Your task to perform on an android device: Add alienware aurora to the cart on walmart, then select checkout. Image 0: 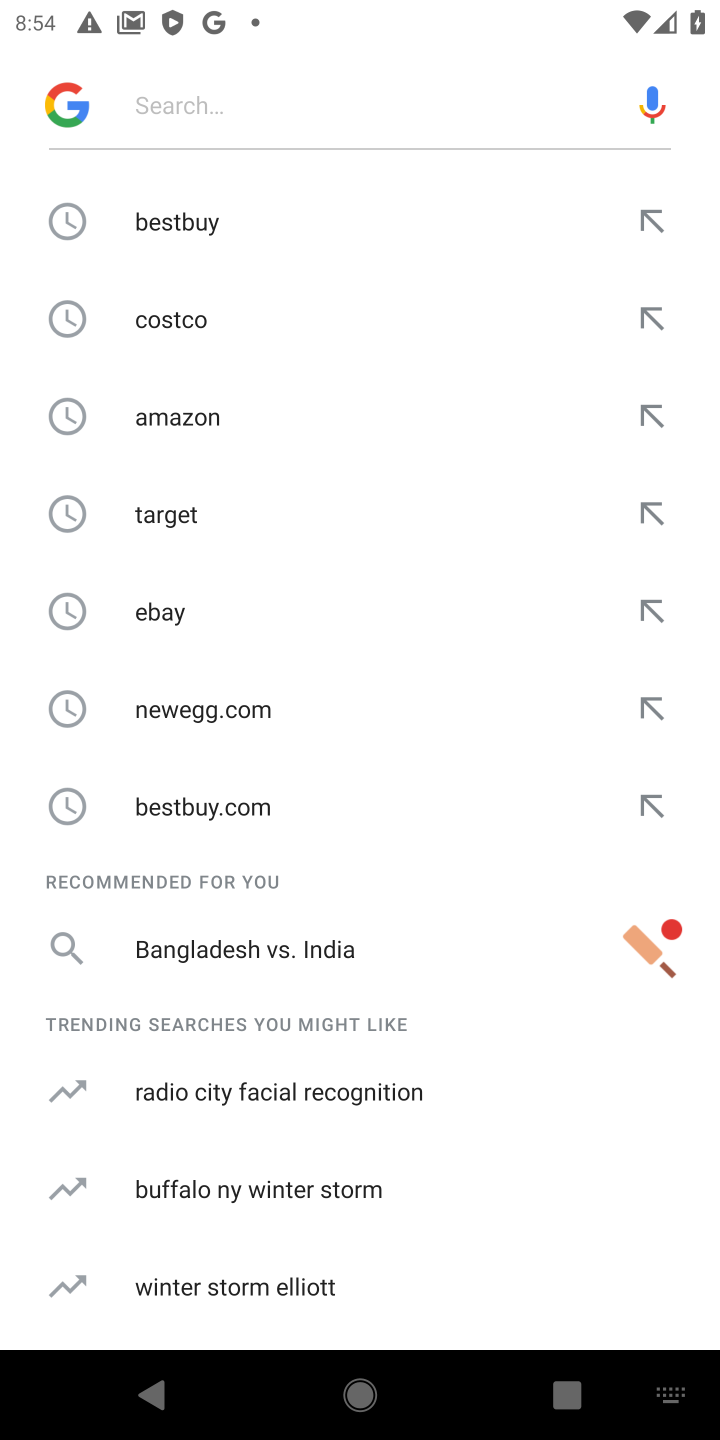
Step 0: click (182, 119)
Your task to perform on an android device: Add alienware aurora to the cart on walmart, then select checkout. Image 1: 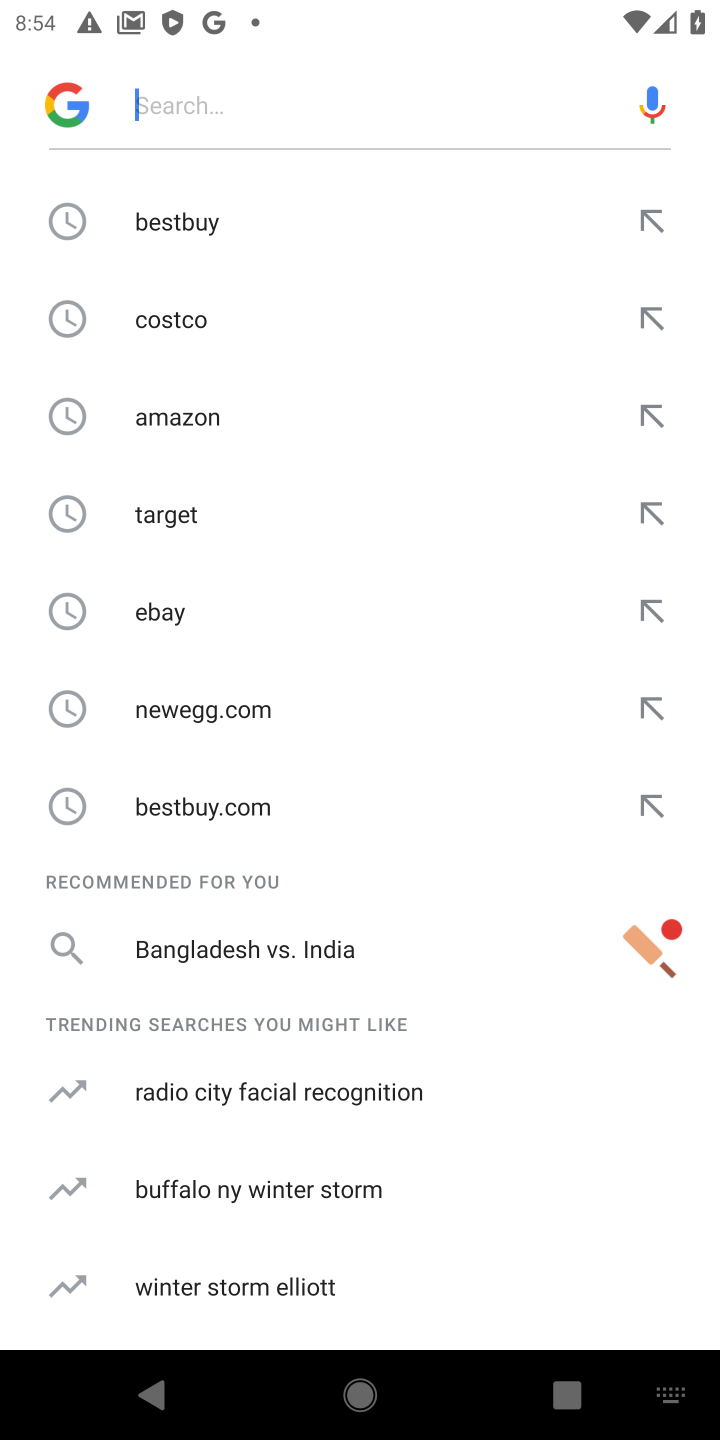
Step 1: type "walmart.com"
Your task to perform on an android device: Add alienware aurora to the cart on walmart, then select checkout. Image 2: 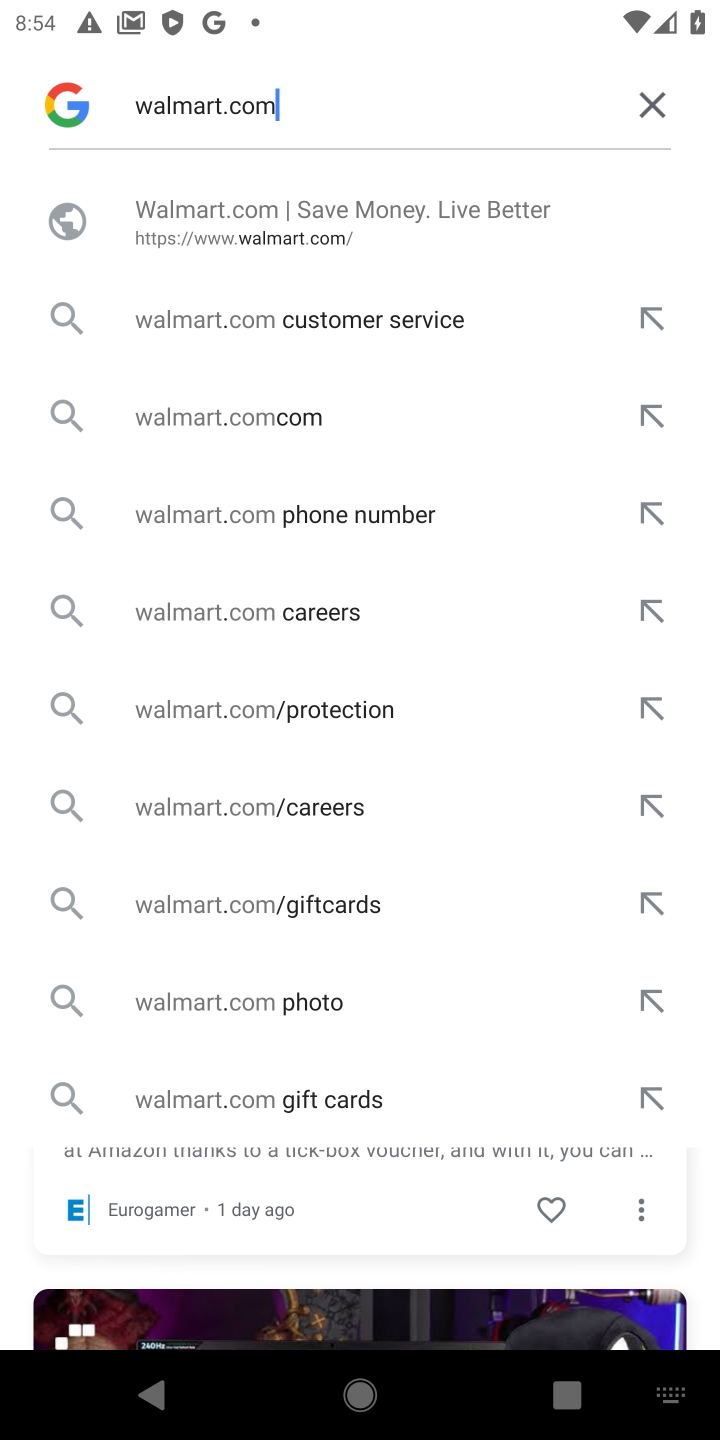
Step 2: click (212, 241)
Your task to perform on an android device: Add alienware aurora to the cart on walmart, then select checkout. Image 3: 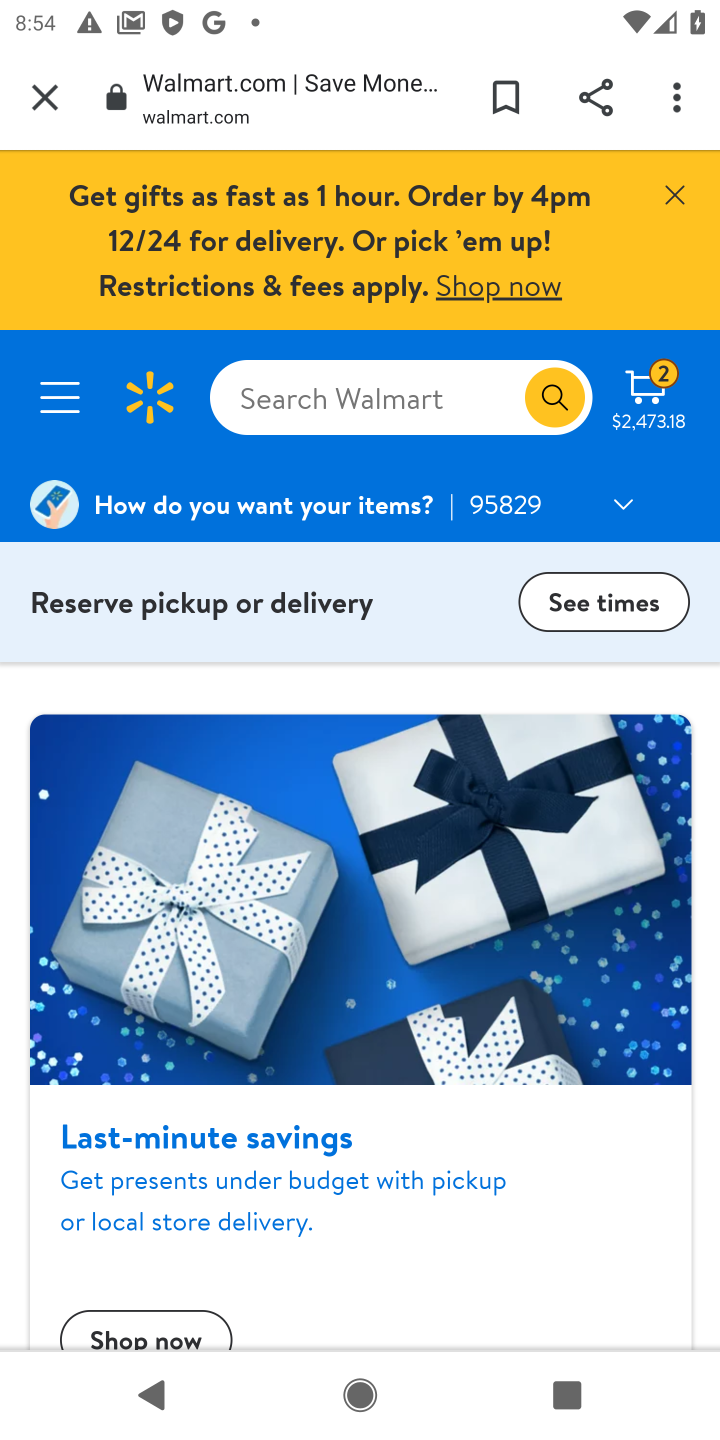
Step 3: click (273, 414)
Your task to perform on an android device: Add alienware aurora to the cart on walmart, then select checkout. Image 4: 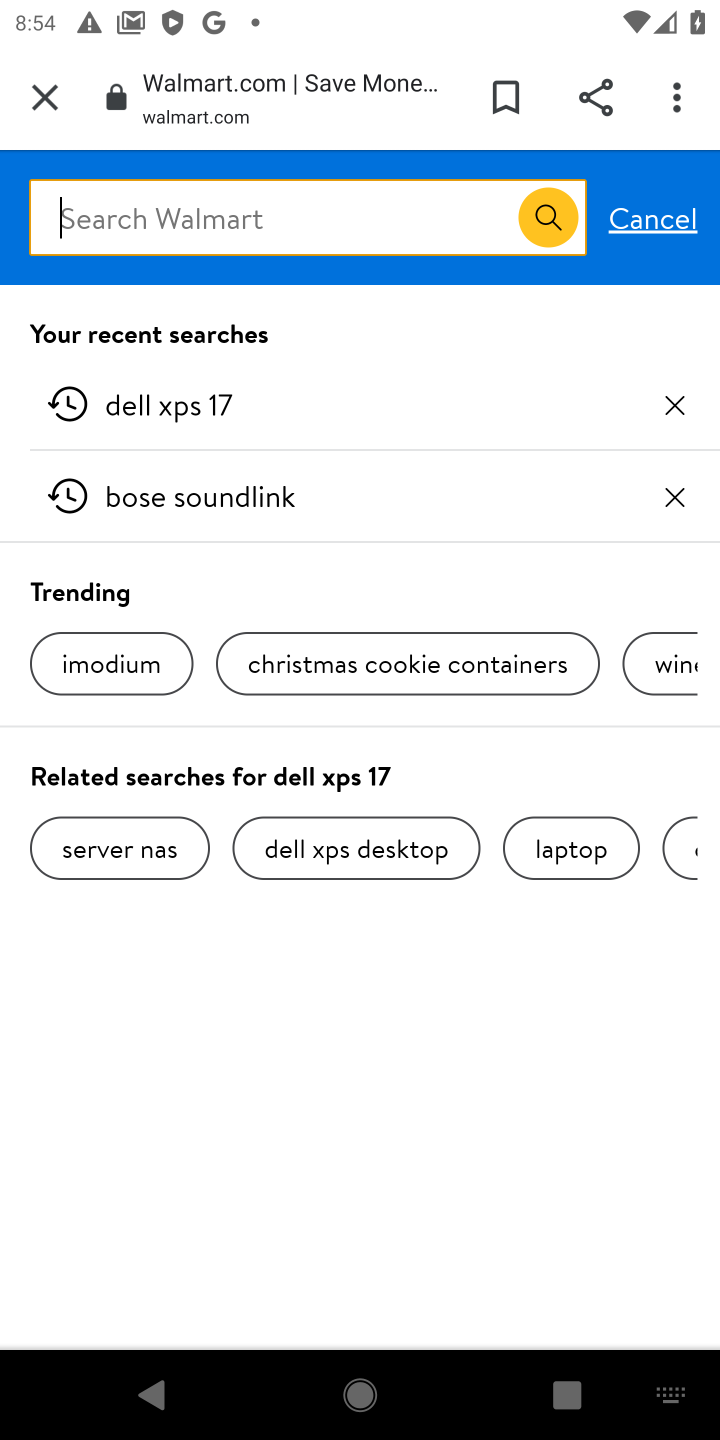
Step 4: type "alienware aurora"
Your task to perform on an android device: Add alienware aurora to the cart on walmart, then select checkout. Image 5: 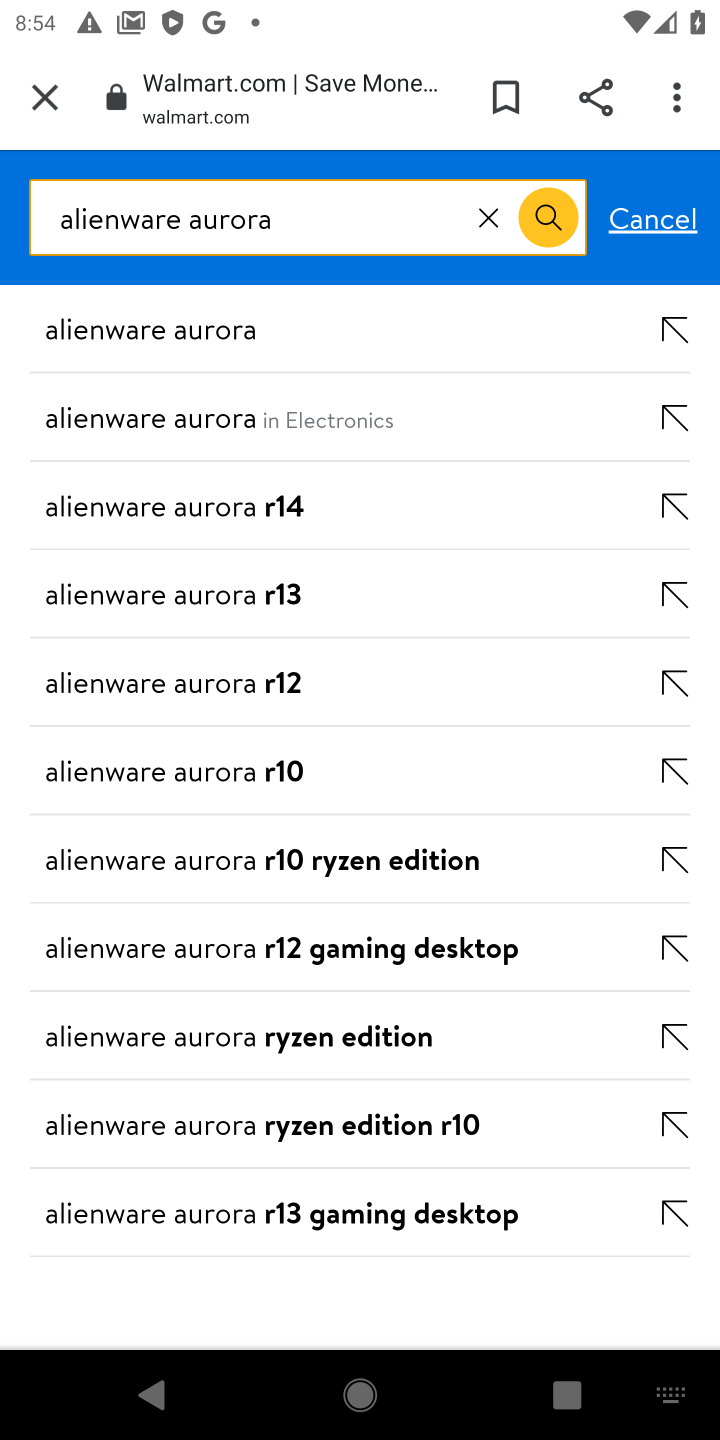
Step 5: click (157, 330)
Your task to perform on an android device: Add alienware aurora to the cart on walmart, then select checkout. Image 6: 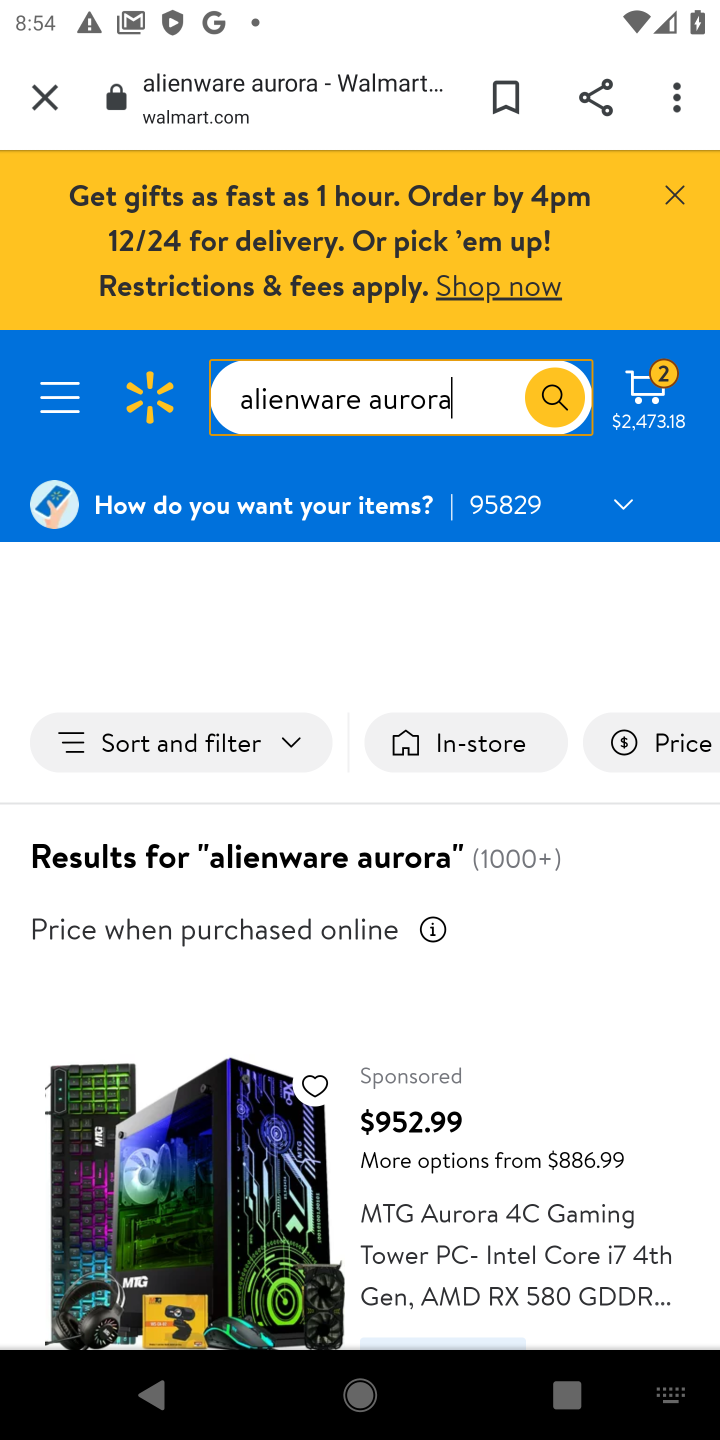
Step 6: drag from (235, 937) to (304, 506)
Your task to perform on an android device: Add alienware aurora to the cart on walmart, then select checkout. Image 7: 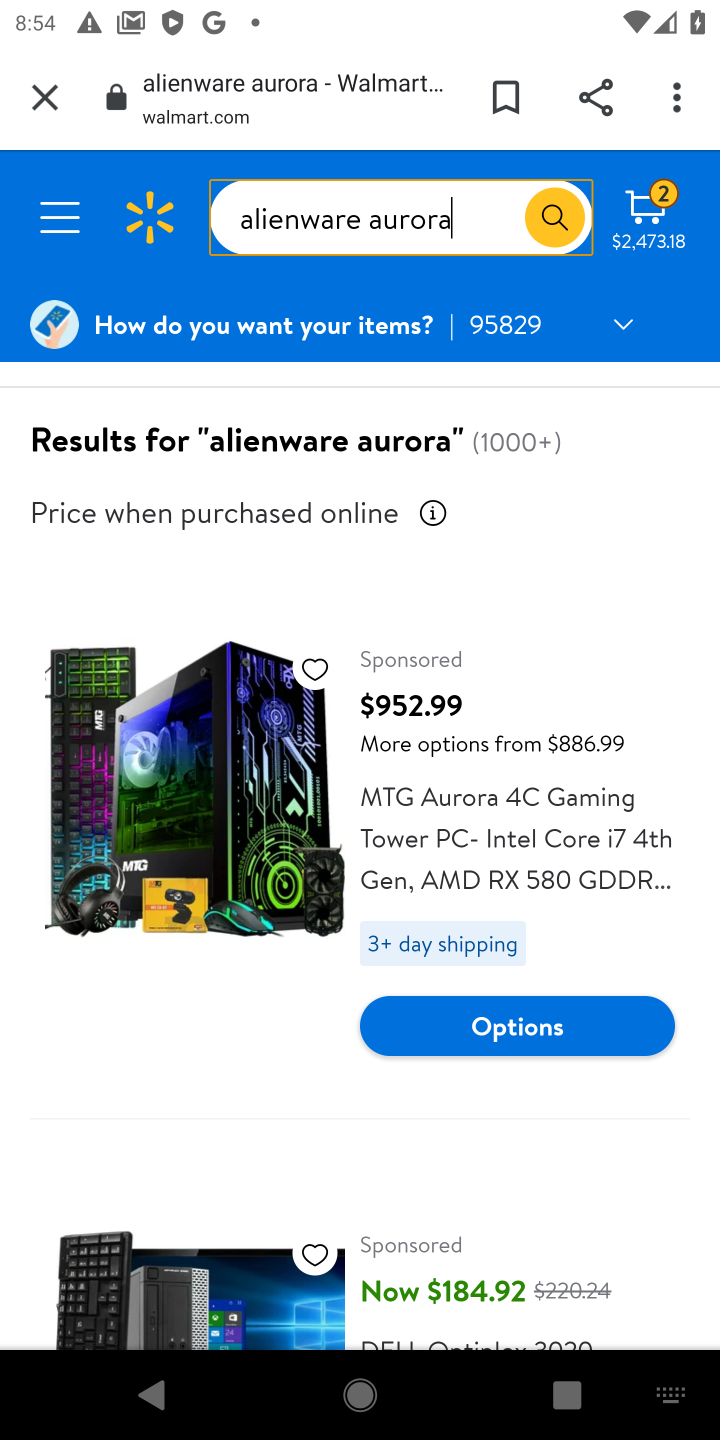
Step 7: drag from (358, 873) to (334, 489)
Your task to perform on an android device: Add alienware aurora to the cart on walmart, then select checkout. Image 8: 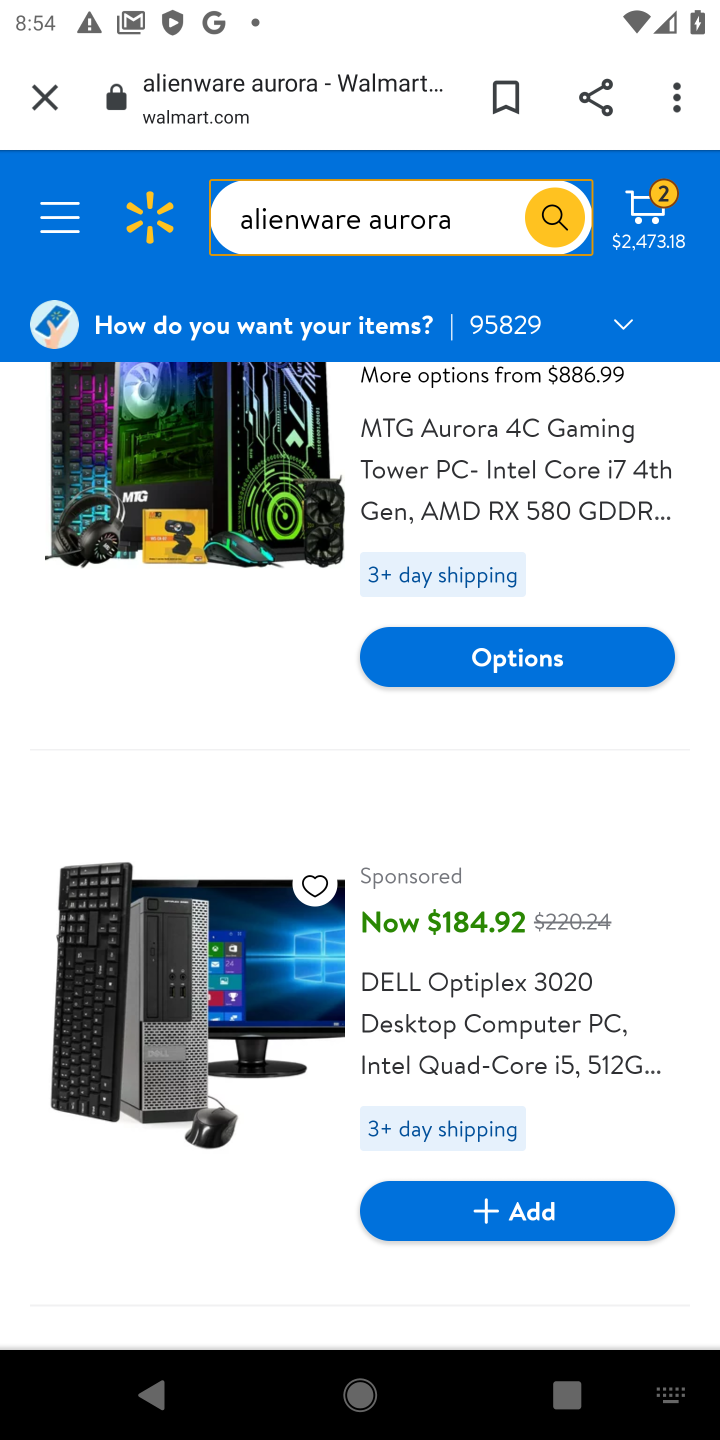
Step 8: drag from (316, 997) to (299, 432)
Your task to perform on an android device: Add alienware aurora to the cart on walmart, then select checkout. Image 9: 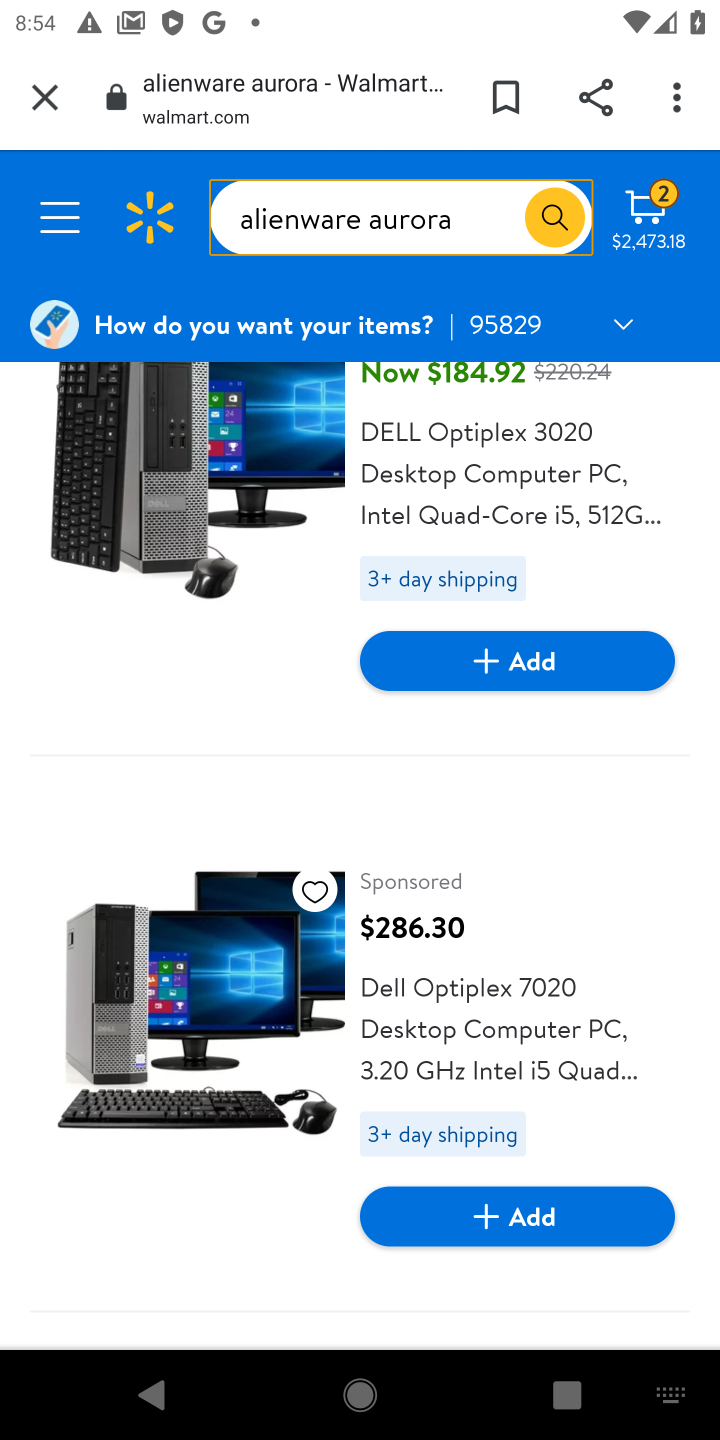
Step 9: drag from (236, 872) to (254, 514)
Your task to perform on an android device: Add alienware aurora to the cart on walmart, then select checkout. Image 10: 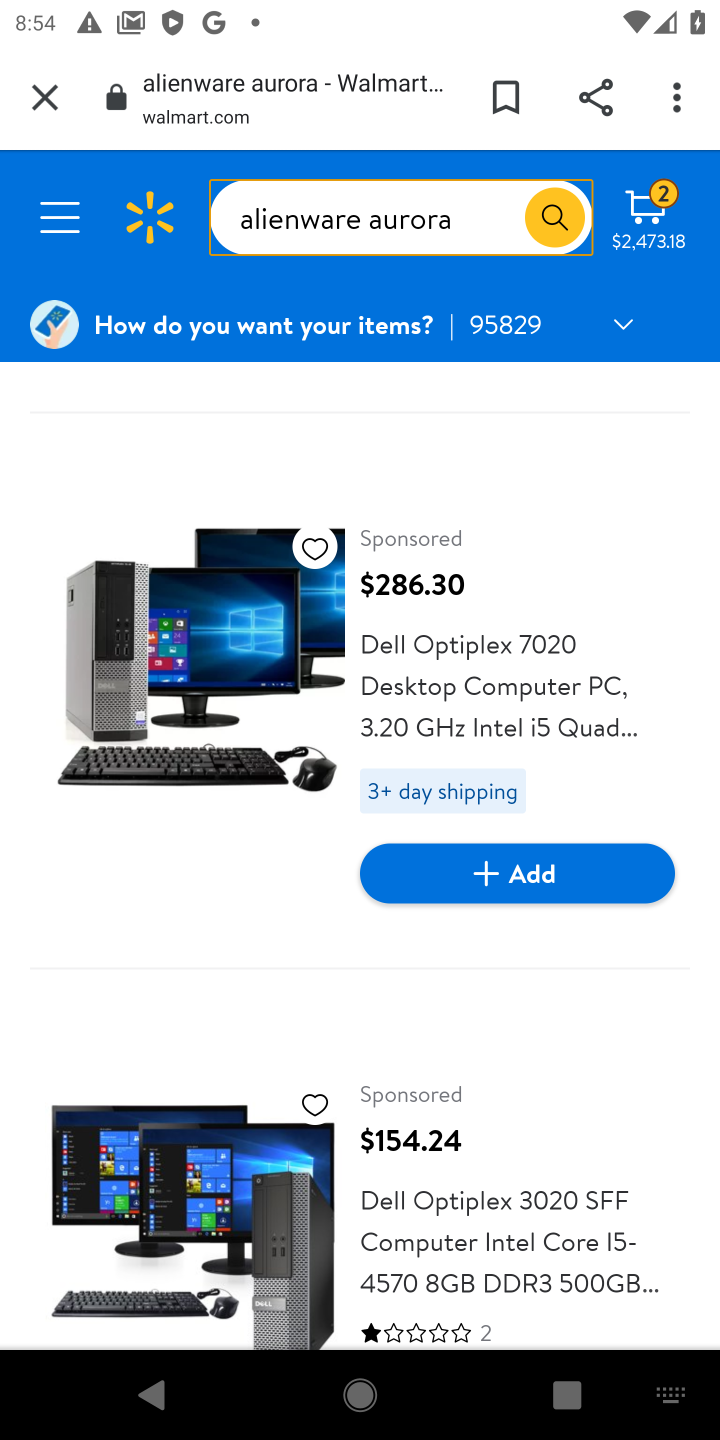
Step 10: drag from (244, 1002) to (260, 498)
Your task to perform on an android device: Add alienware aurora to the cart on walmart, then select checkout. Image 11: 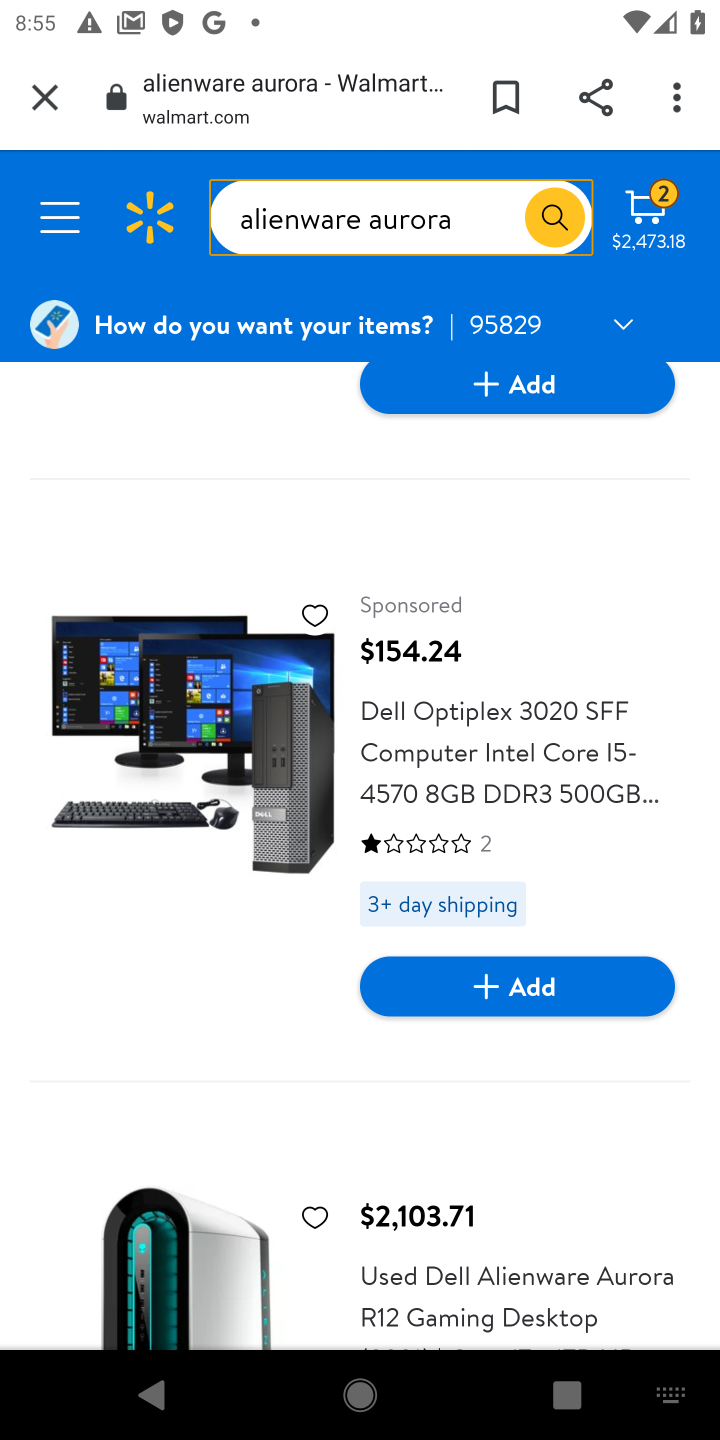
Step 11: drag from (266, 927) to (270, 588)
Your task to perform on an android device: Add alienware aurora to the cart on walmart, then select checkout. Image 12: 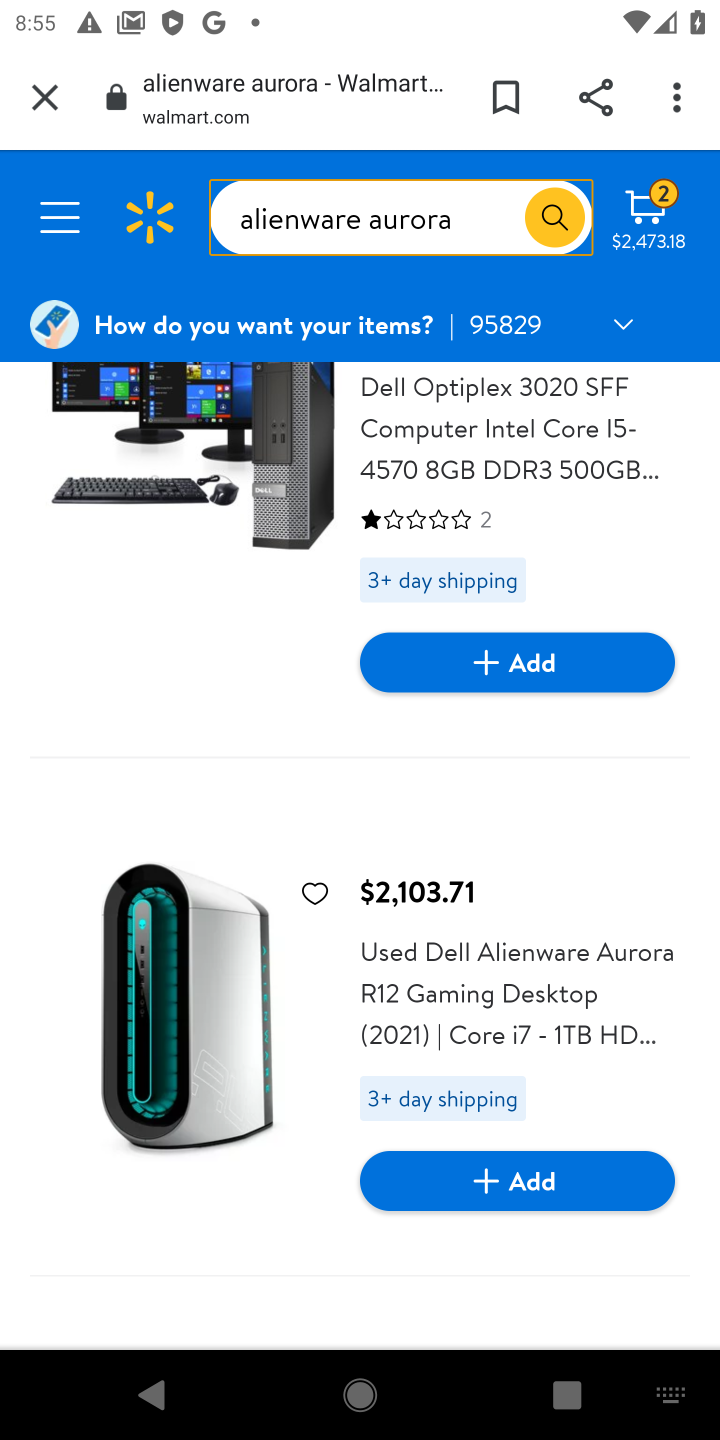
Step 12: click (540, 1184)
Your task to perform on an android device: Add alienware aurora to the cart on walmart, then select checkout. Image 13: 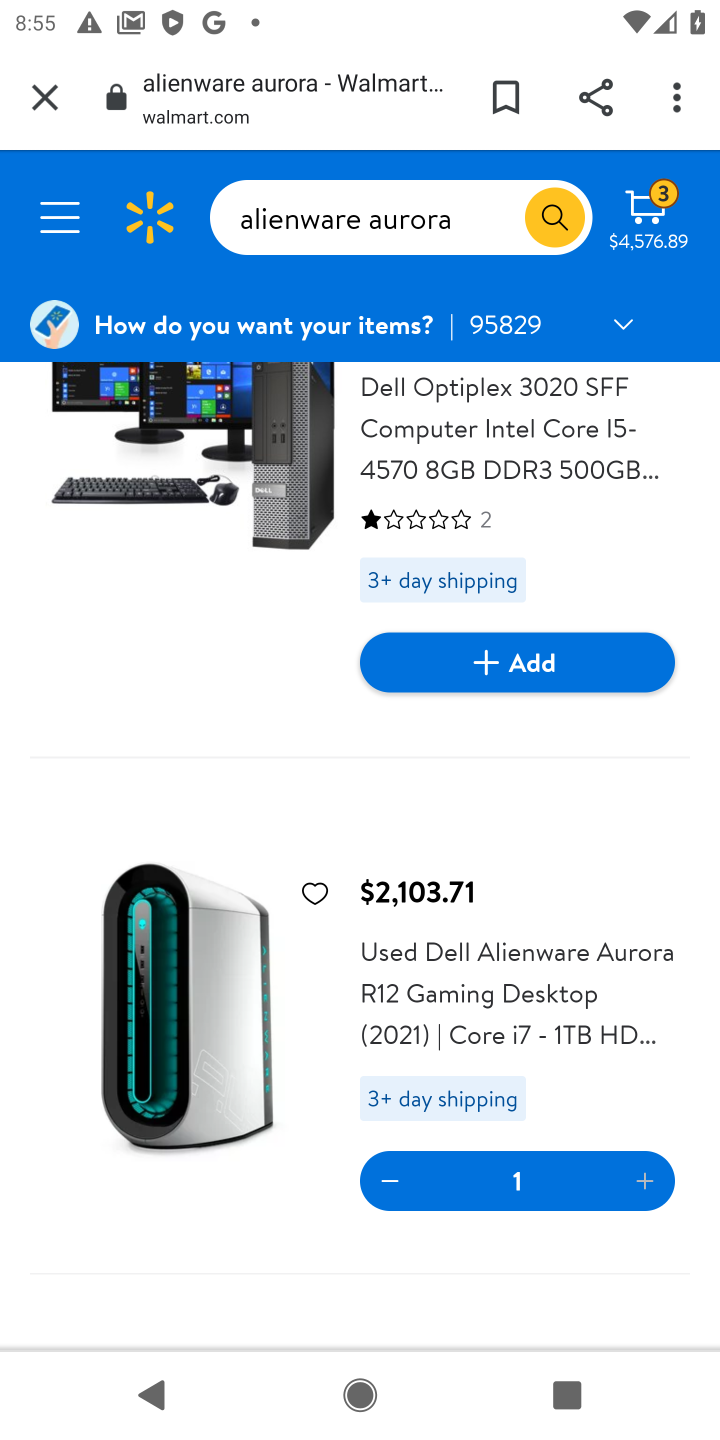
Step 13: click (640, 213)
Your task to perform on an android device: Add alienware aurora to the cart on walmart, then select checkout. Image 14: 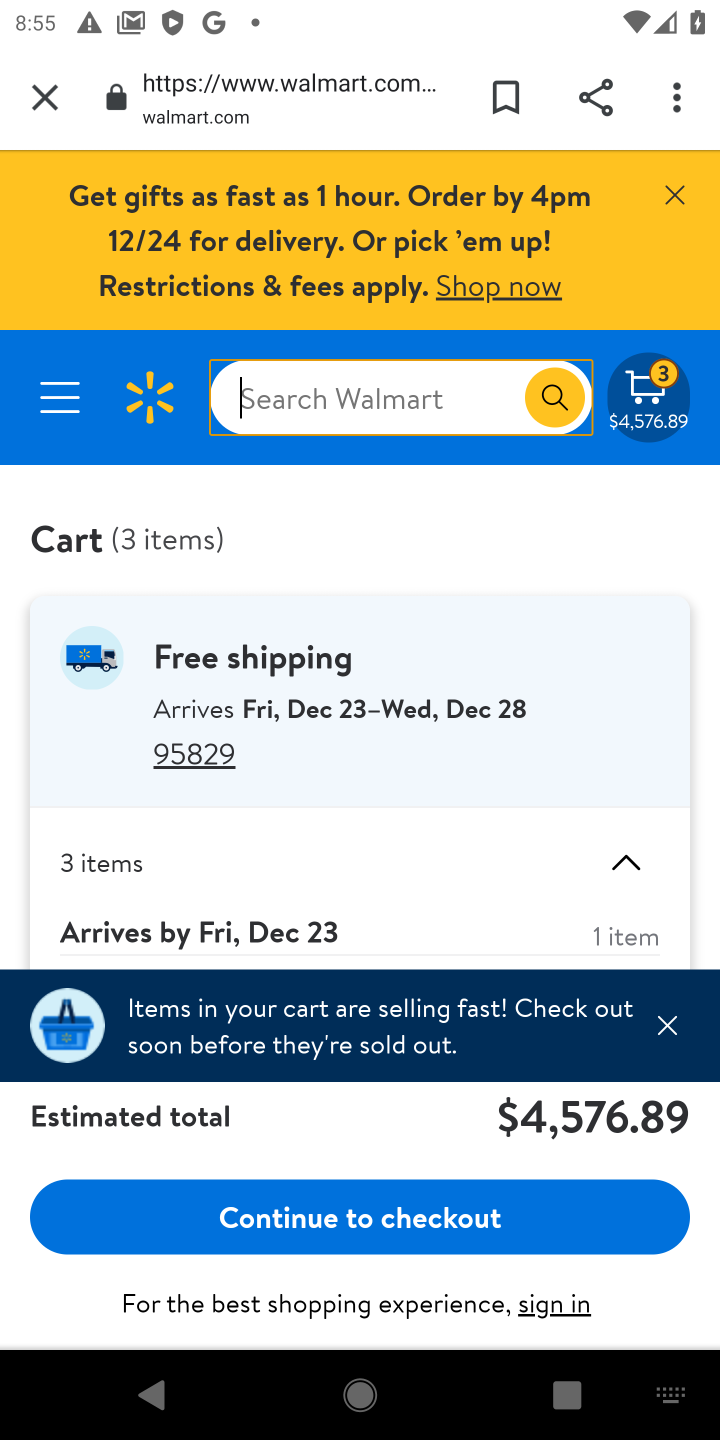
Step 14: click (316, 1233)
Your task to perform on an android device: Add alienware aurora to the cart on walmart, then select checkout. Image 15: 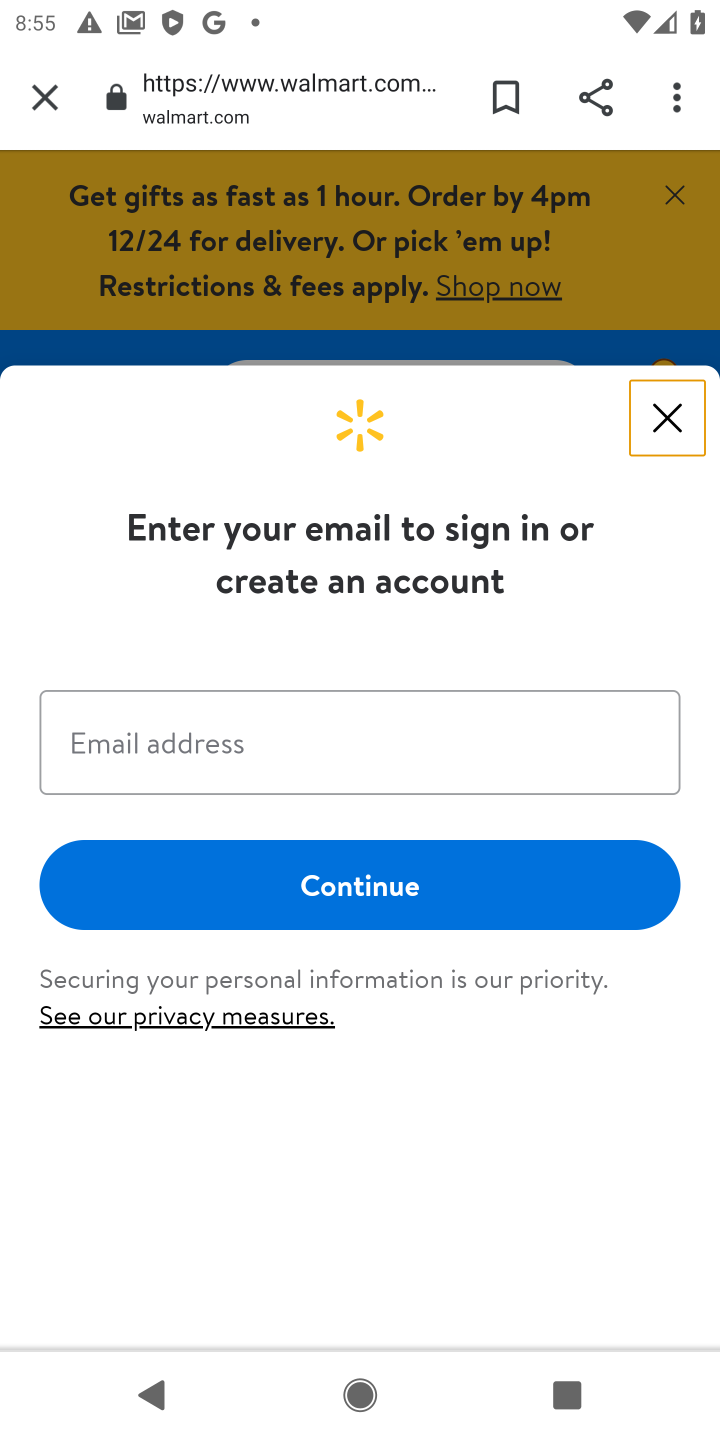
Step 15: task complete